Your task to perform on an android device: Open Chrome and go to settings Image 0: 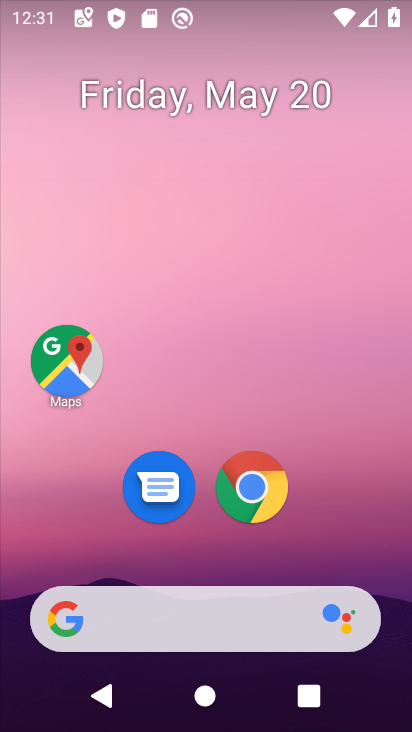
Step 0: click (268, 496)
Your task to perform on an android device: Open Chrome and go to settings Image 1: 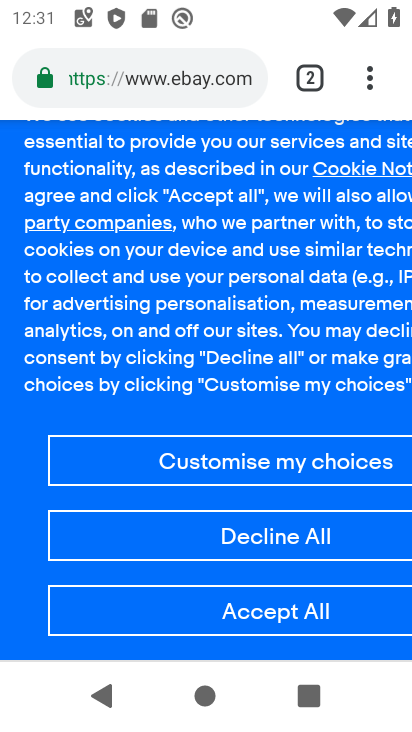
Step 1: task complete